Your task to perform on an android device: Turn off the flashlight Image 0: 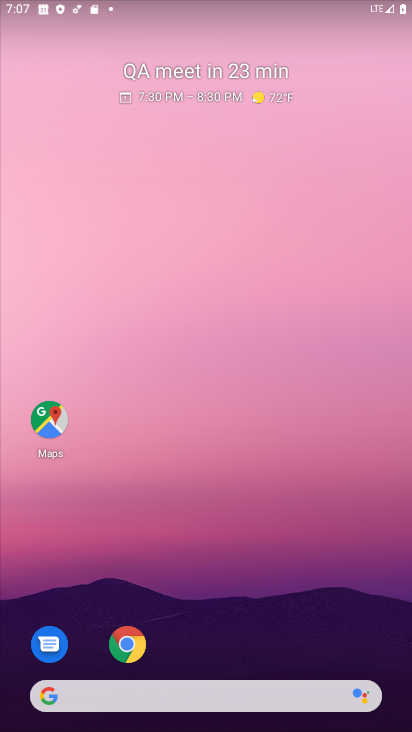
Step 0: drag from (275, 665) to (270, 206)
Your task to perform on an android device: Turn off the flashlight Image 1: 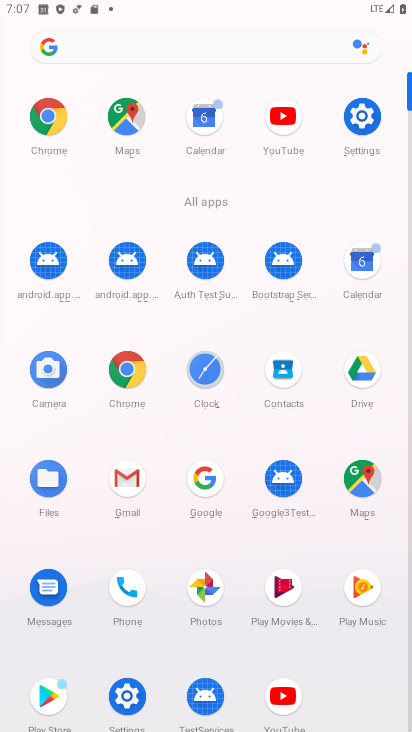
Step 1: click (346, 111)
Your task to perform on an android device: Turn off the flashlight Image 2: 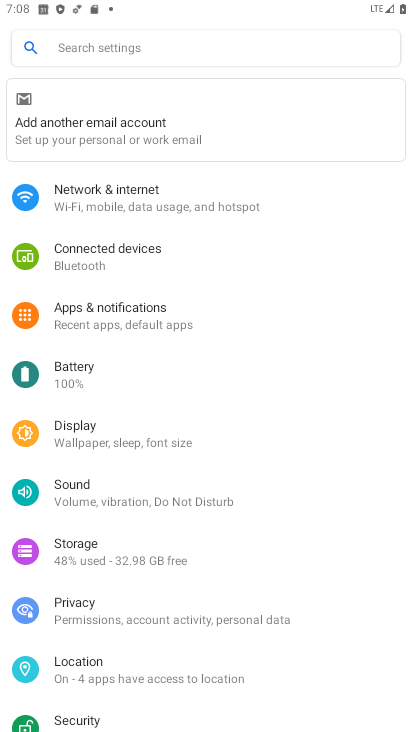
Step 2: click (106, 46)
Your task to perform on an android device: Turn off the flashlight Image 3: 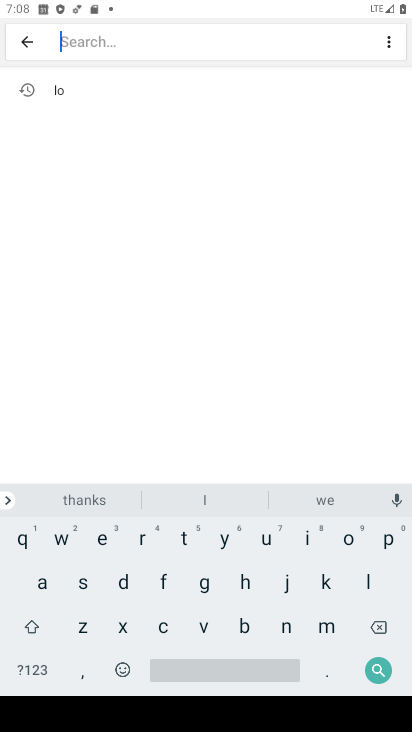
Step 3: click (169, 581)
Your task to perform on an android device: Turn off the flashlight Image 4: 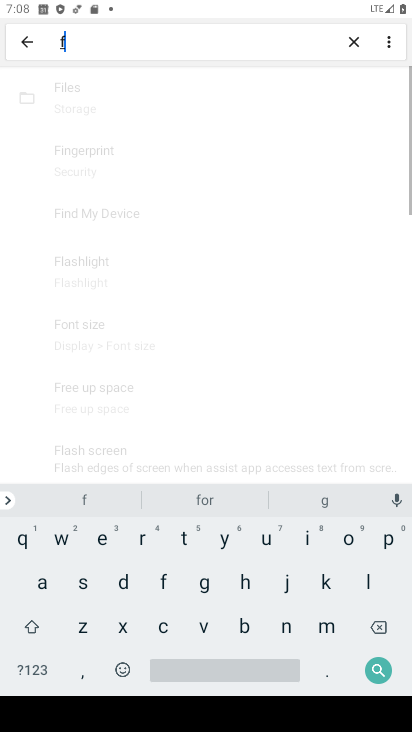
Step 4: click (377, 583)
Your task to perform on an android device: Turn off the flashlight Image 5: 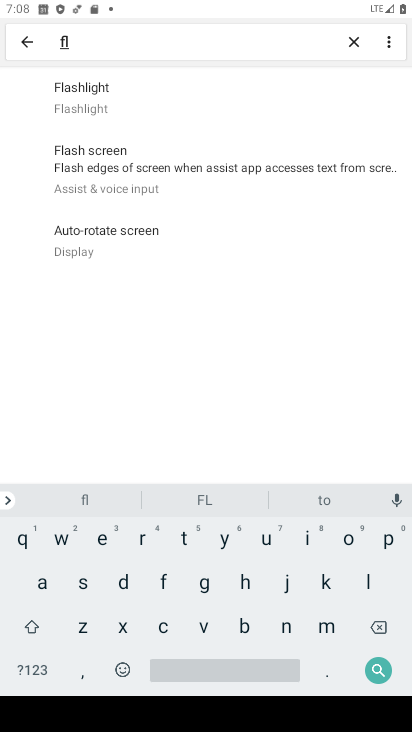
Step 5: click (86, 82)
Your task to perform on an android device: Turn off the flashlight Image 6: 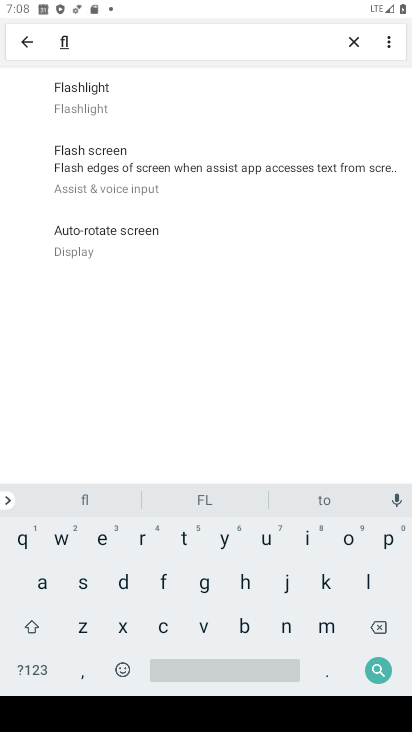
Step 6: click (86, 80)
Your task to perform on an android device: Turn off the flashlight Image 7: 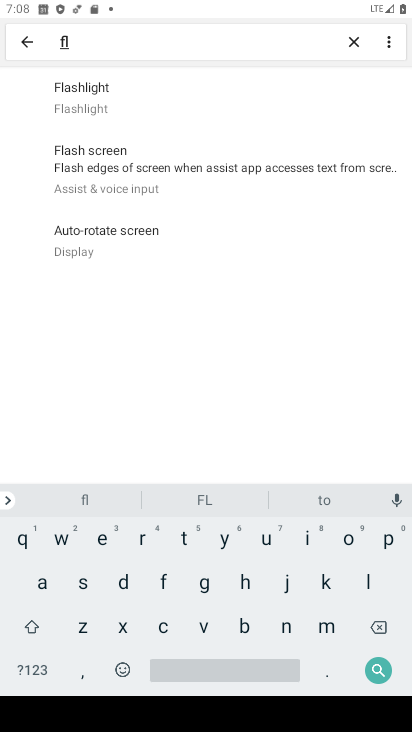
Step 7: task complete